Your task to perform on an android device: manage bookmarks in the chrome app Image 0: 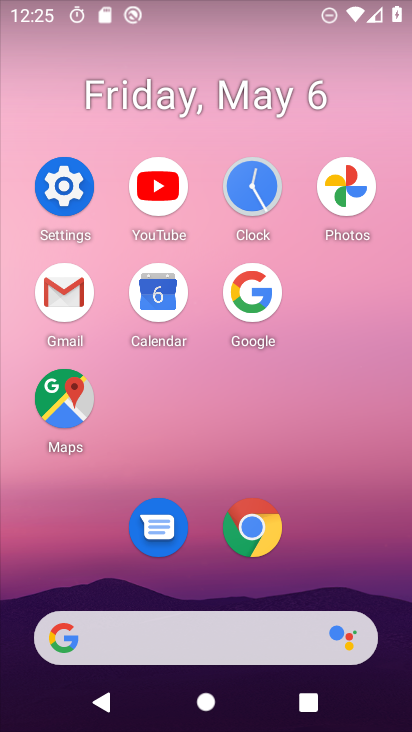
Step 0: click (263, 526)
Your task to perform on an android device: manage bookmarks in the chrome app Image 1: 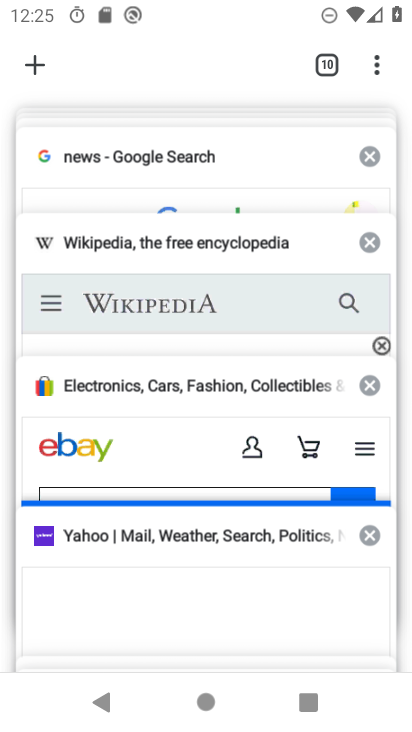
Step 1: click (382, 63)
Your task to perform on an android device: manage bookmarks in the chrome app Image 2: 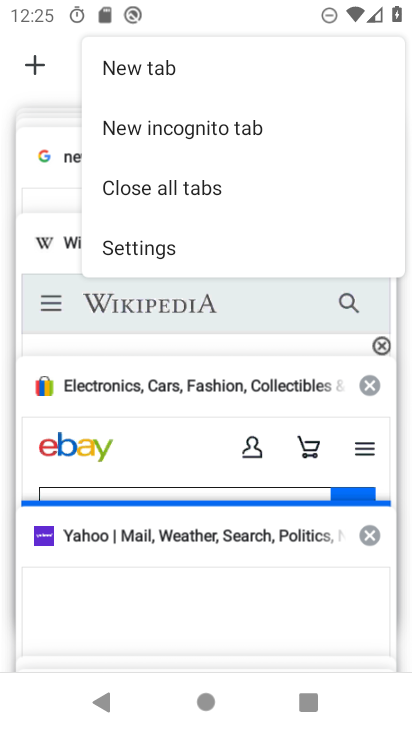
Step 2: click (22, 69)
Your task to perform on an android device: manage bookmarks in the chrome app Image 3: 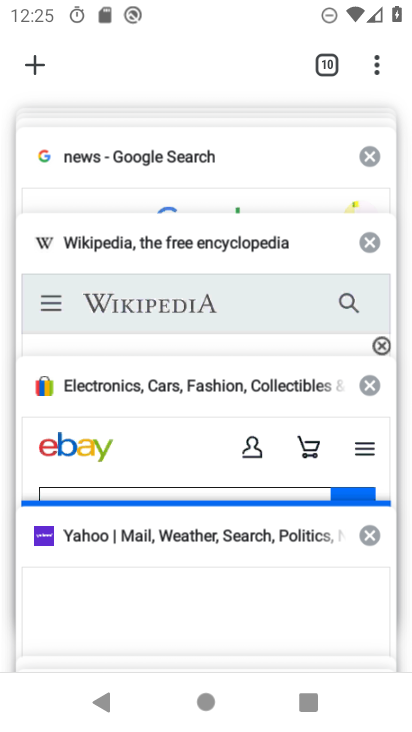
Step 3: click (33, 67)
Your task to perform on an android device: manage bookmarks in the chrome app Image 4: 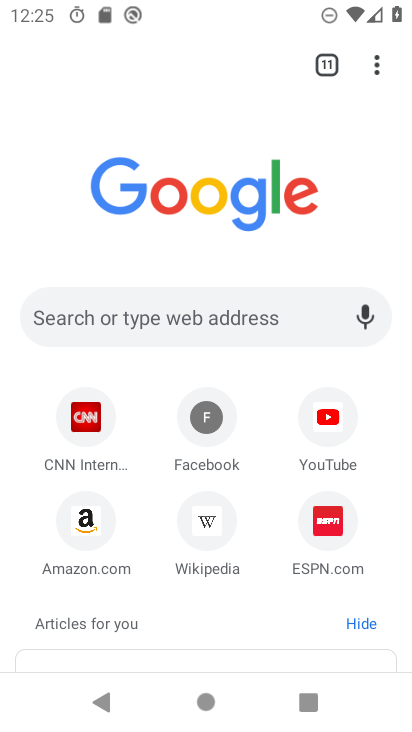
Step 4: click (392, 57)
Your task to perform on an android device: manage bookmarks in the chrome app Image 5: 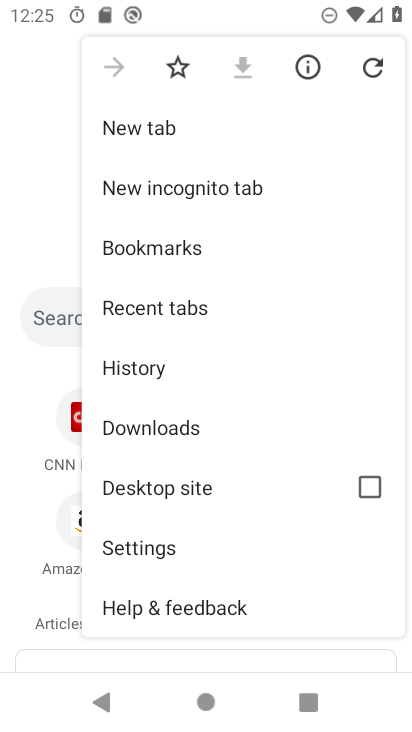
Step 5: click (195, 245)
Your task to perform on an android device: manage bookmarks in the chrome app Image 6: 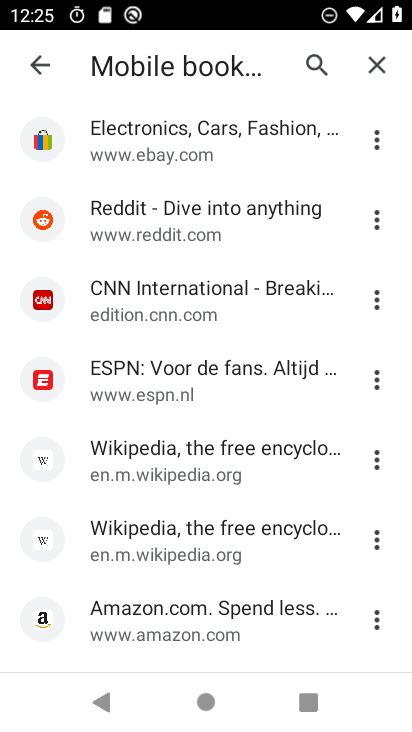
Step 6: click (367, 139)
Your task to perform on an android device: manage bookmarks in the chrome app Image 7: 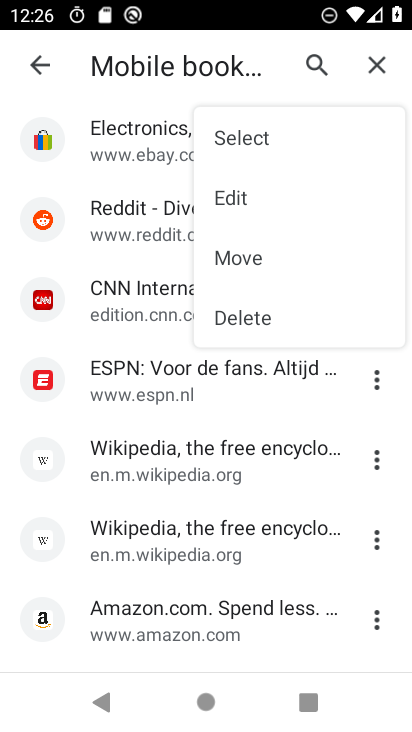
Step 7: click (244, 301)
Your task to perform on an android device: manage bookmarks in the chrome app Image 8: 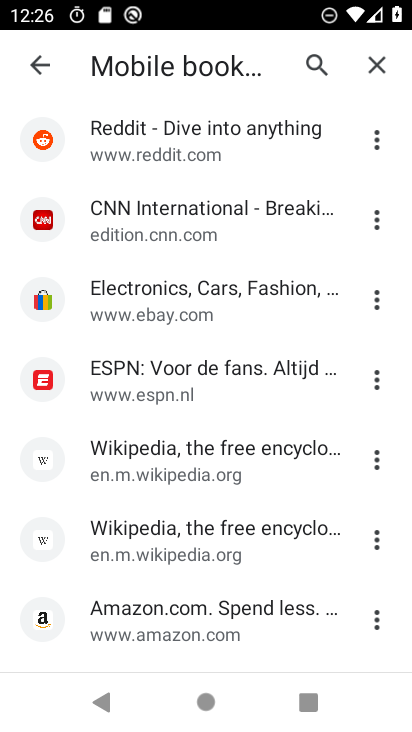
Step 8: task complete